Your task to perform on an android device: change keyboard looks Image 0: 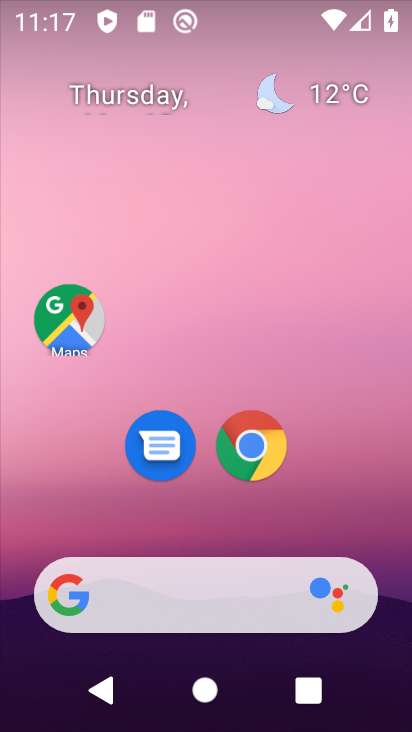
Step 0: drag from (178, 586) to (152, 104)
Your task to perform on an android device: change keyboard looks Image 1: 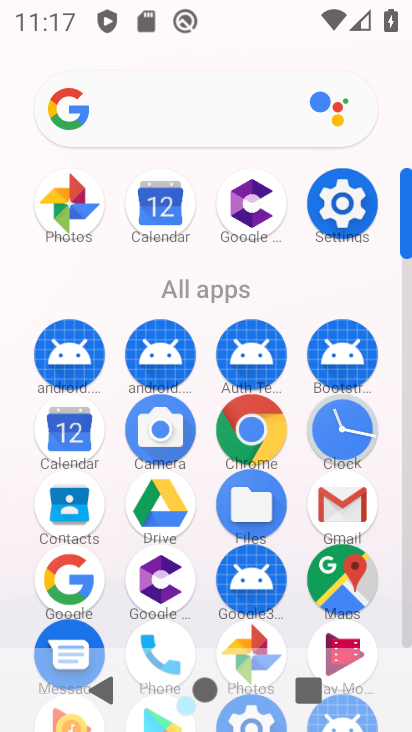
Step 1: click (327, 217)
Your task to perform on an android device: change keyboard looks Image 2: 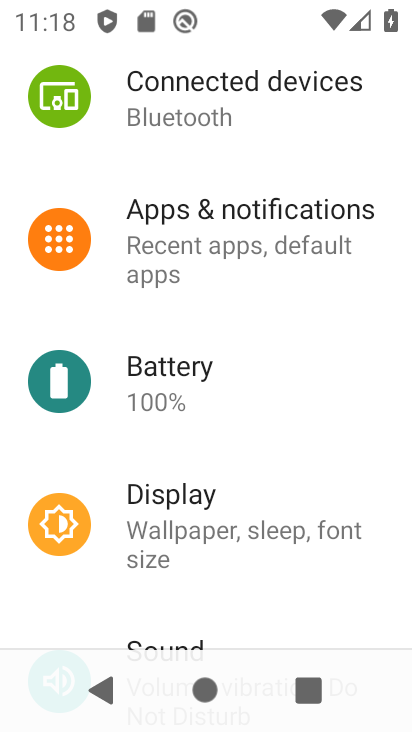
Step 2: drag from (169, 548) to (150, 4)
Your task to perform on an android device: change keyboard looks Image 3: 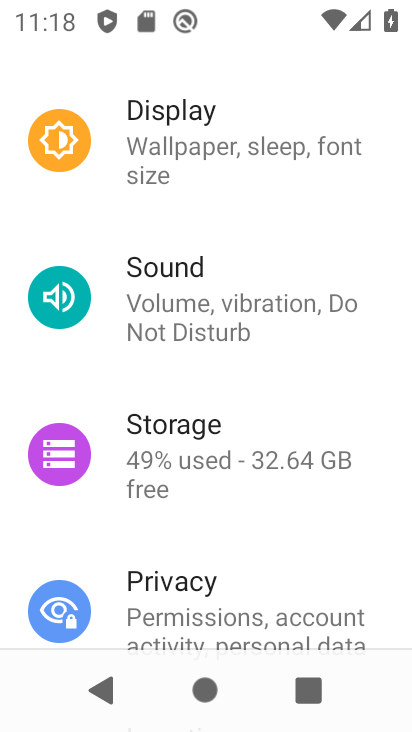
Step 3: drag from (161, 572) to (123, 54)
Your task to perform on an android device: change keyboard looks Image 4: 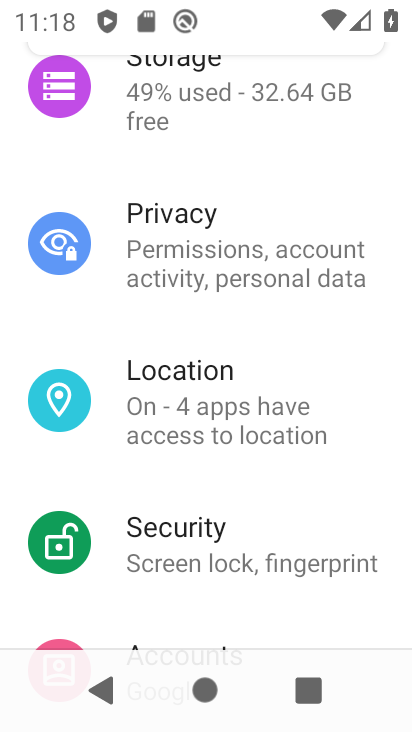
Step 4: drag from (189, 510) to (79, 10)
Your task to perform on an android device: change keyboard looks Image 5: 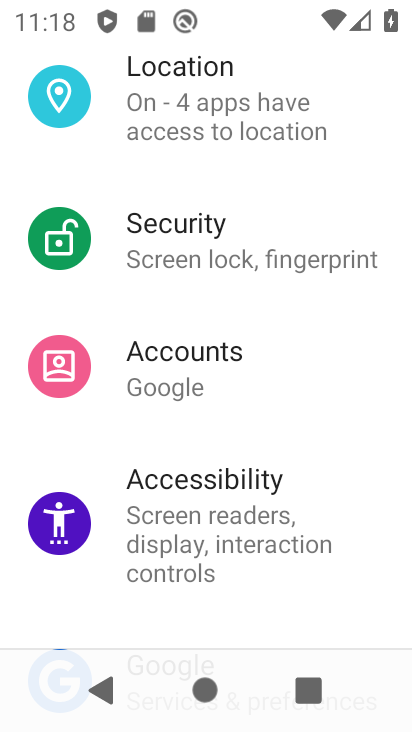
Step 5: drag from (220, 548) to (231, 35)
Your task to perform on an android device: change keyboard looks Image 6: 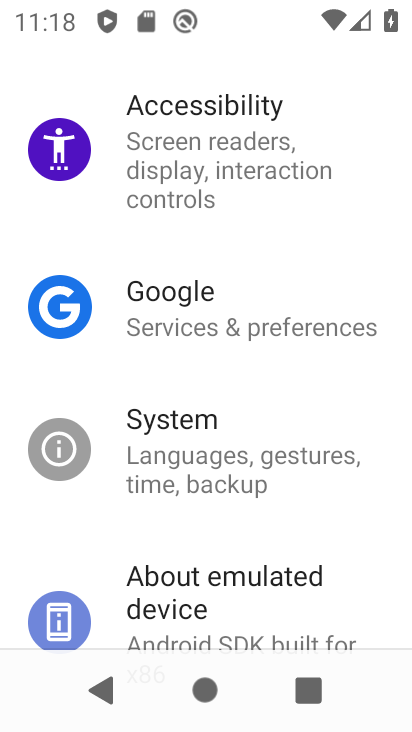
Step 6: click (234, 468)
Your task to perform on an android device: change keyboard looks Image 7: 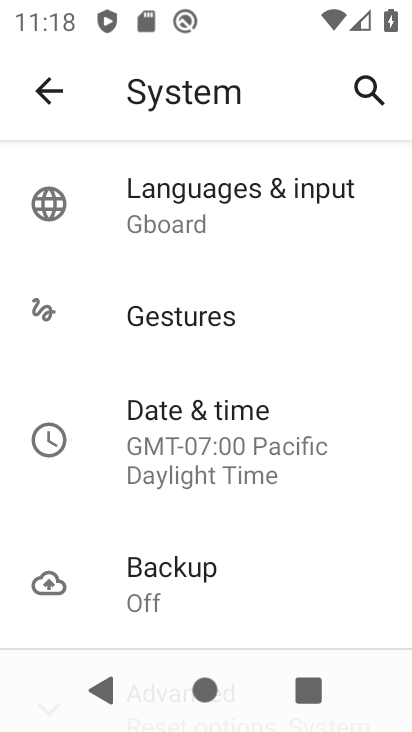
Step 7: click (142, 227)
Your task to perform on an android device: change keyboard looks Image 8: 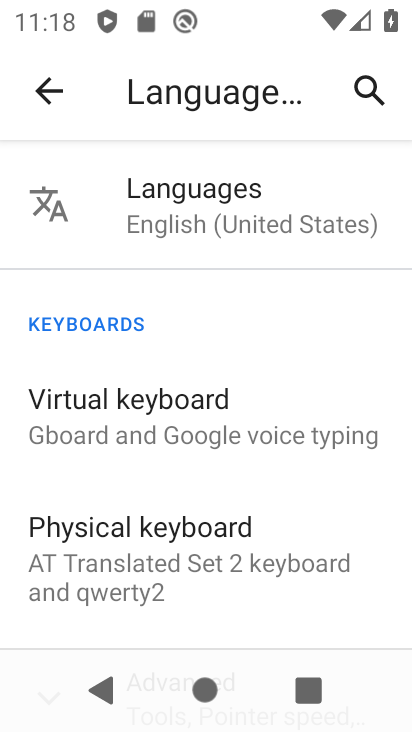
Step 8: click (131, 405)
Your task to perform on an android device: change keyboard looks Image 9: 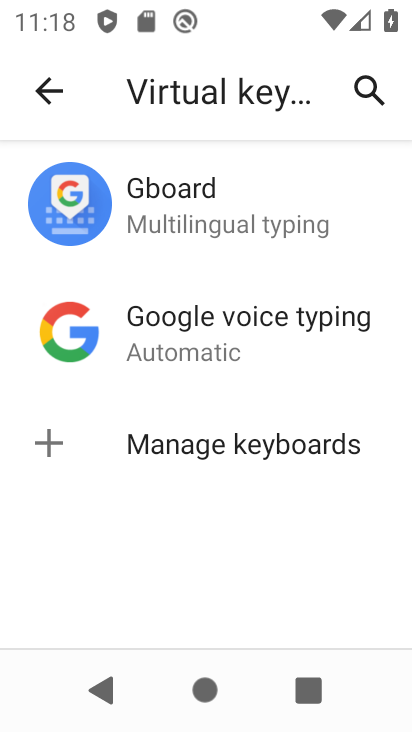
Step 9: click (153, 193)
Your task to perform on an android device: change keyboard looks Image 10: 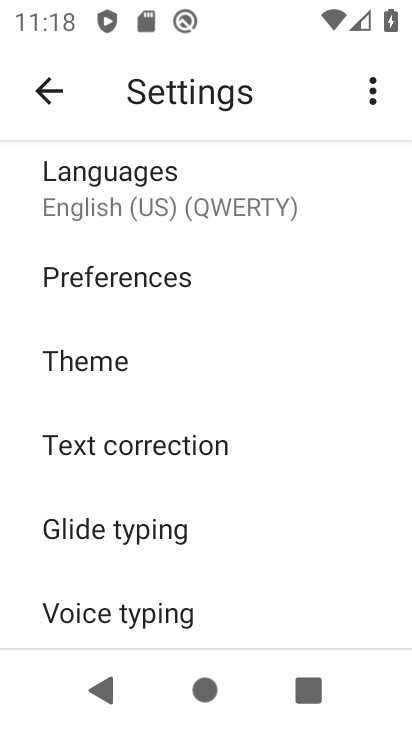
Step 10: click (141, 370)
Your task to perform on an android device: change keyboard looks Image 11: 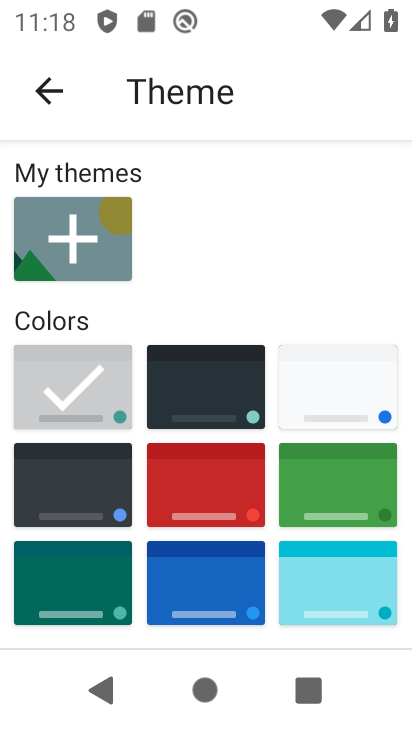
Step 11: click (73, 598)
Your task to perform on an android device: change keyboard looks Image 12: 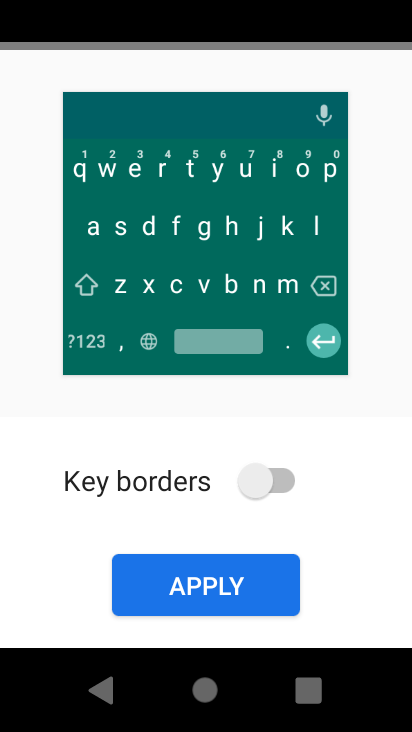
Step 12: task complete